Your task to perform on an android device: Open the phone app and click the voicemail tab. Image 0: 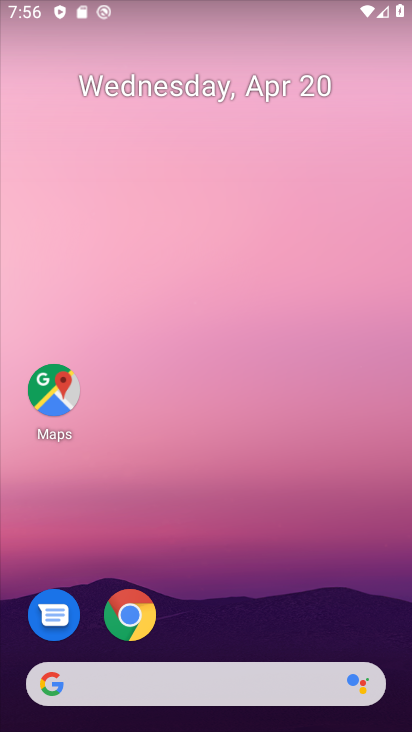
Step 0: drag from (245, 555) to (349, 10)
Your task to perform on an android device: Open the phone app and click the voicemail tab. Image 1: 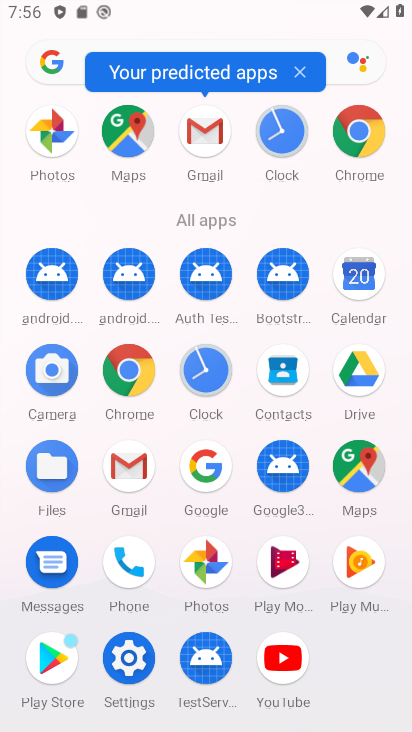
Step 1: click (127, 560)
Your task to perform on an android device: Open the phone app and click the voicemail tab. Image 2: 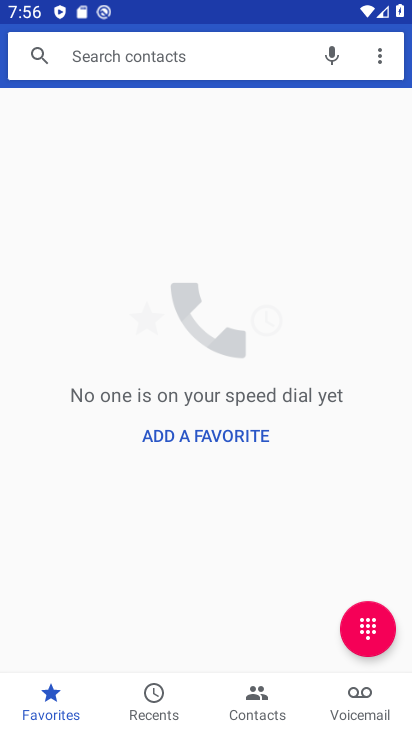
Step 2: click (357, 695)
Your task to perform on an android device: Open the phone app and click the voicemail tab. Image 3: 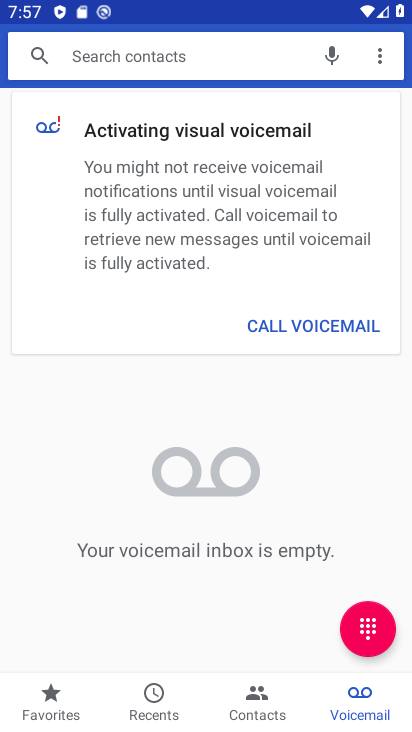
Step 3: task complete